Your task to perform on an android device: Play the last video I watched on Youtube Image 0: 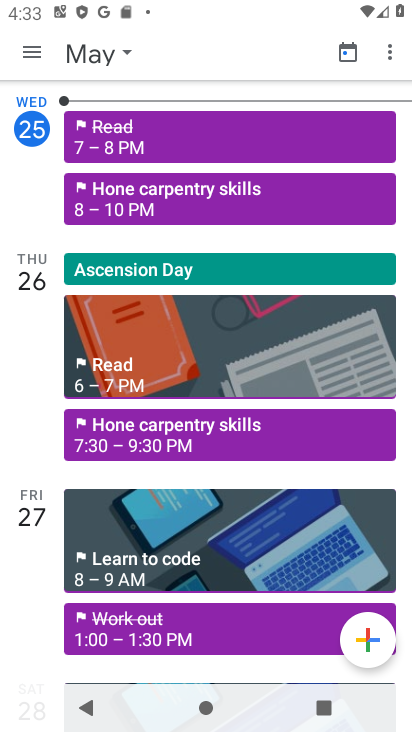
Step 0: press back button
Your task to perform on an android device: Play the last video I watched on Youtube Image 1: 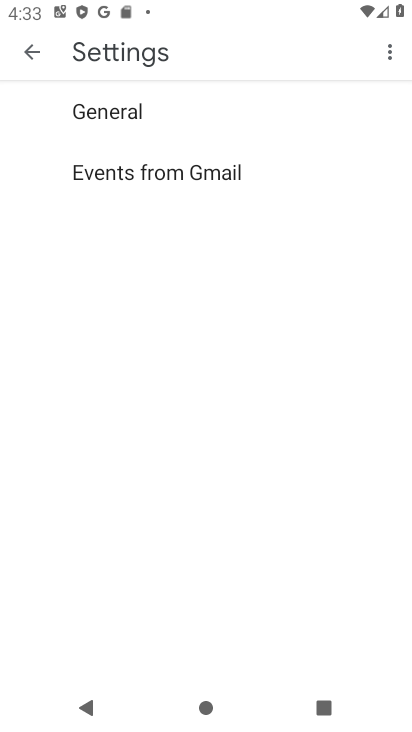
Step 1: press home button
Your task to perform on an android device: Play the last video I watched on Youtube Image 2: 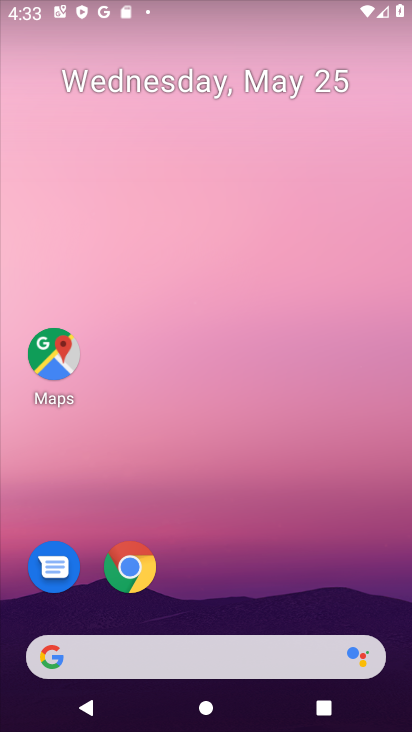
Step 2: drag from (352, 559) to (305, 29)
Your task to perform on an android device: Play the last video I watched on Youtube Image 3: 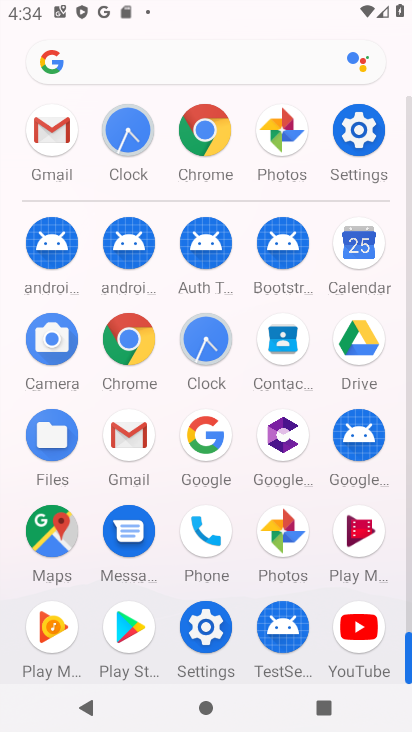
Step 3: click (363, 631)
Your task to perform on an android device: Play the last video I watched on Youtube Image 4: 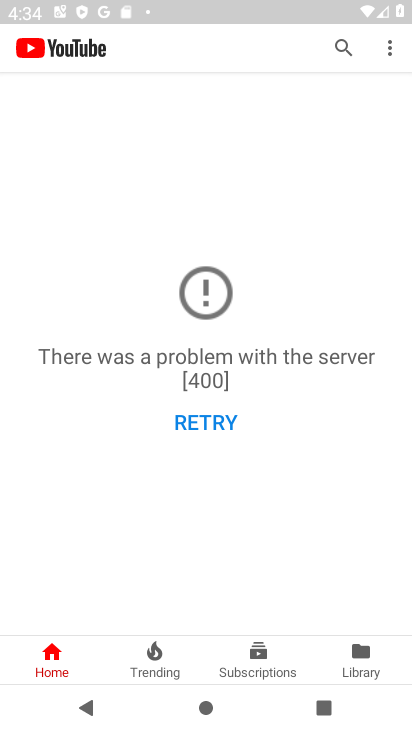
Step 4: click (367, 637)
Your task to perform on an android device: Play the last video I watched on Youtube Image 5: 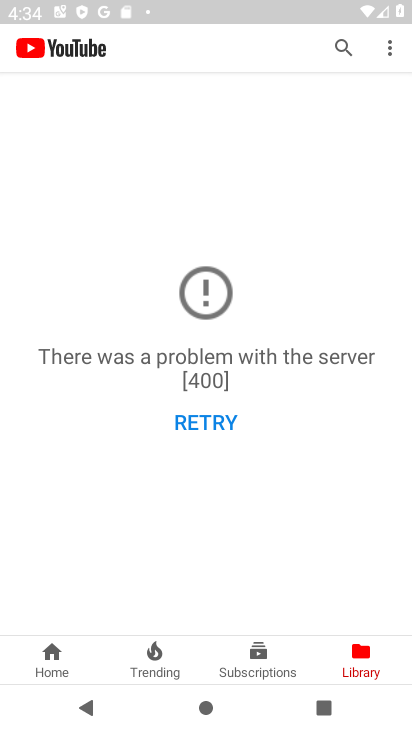
Step 5: task complete